Your task to perform on an android device: turn off translation in the chrome app Image 0: 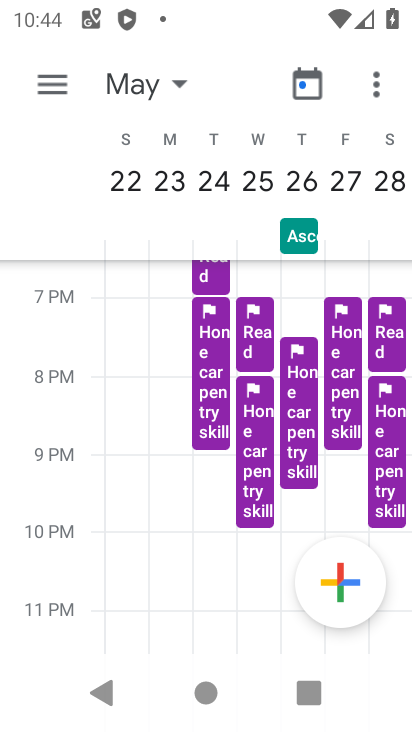
Step 0: press home button
Your task to perform on an android device: turn off translation in the chrome app Image 1: 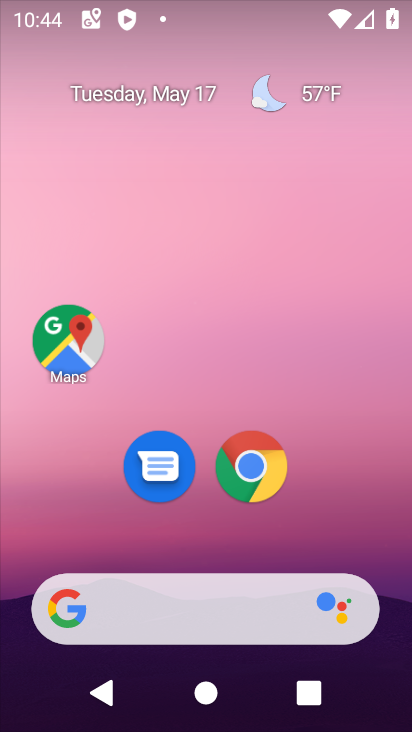
Step 1: drag from (202, 554) to (203, 20)
Your task to perform on an android device: turn off translation in the chrome app Image 2: 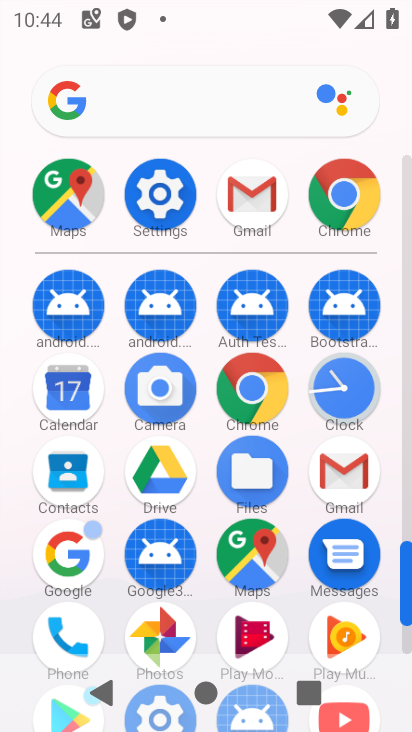
Step 2: click (232, 386)
Your task to perform on an android device: turn off translation in the chrome app Image 3: 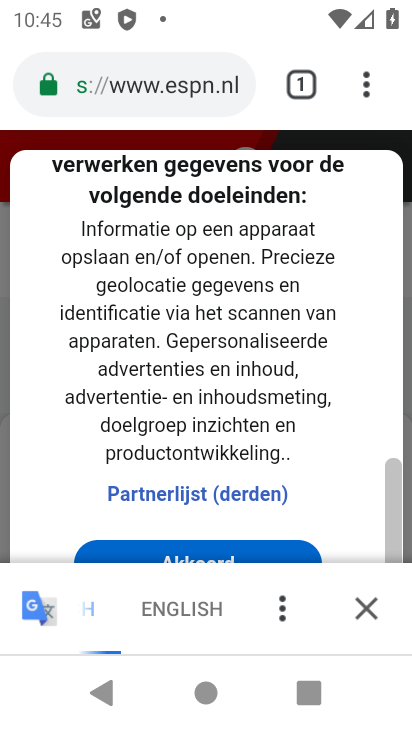
Step 3: click (355, 92)
Your task to perform on an android device: turn off translation in the chrome app Image 4: 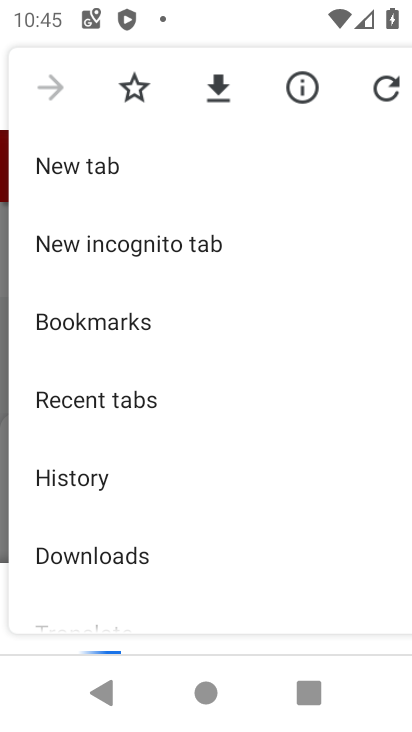
Step 4: drag from (140, 457) to (110, 121)
Your task to perform on an android device: turn off translation in the chrome app Image 5: 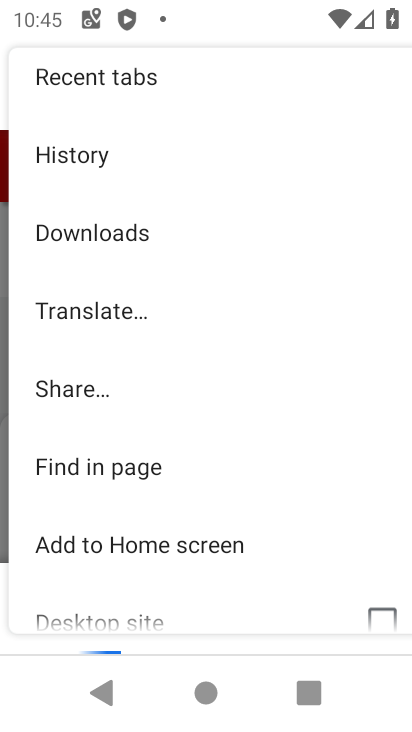
Step 5: drag from (110, 528) to (90, 186)
Your task to perform on an android device: turn off translation in the chrome app Image 6: 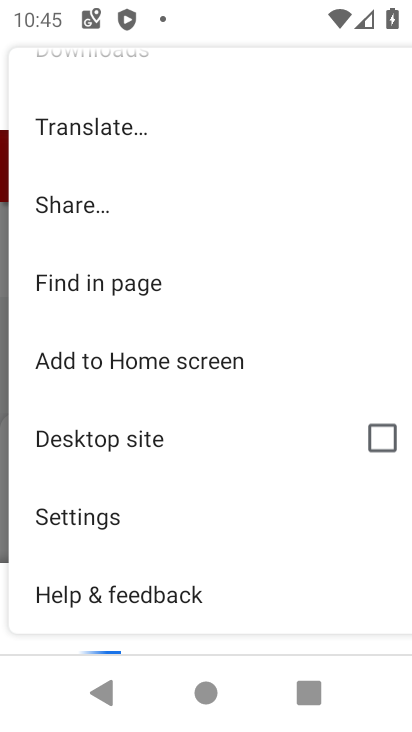
Step 6: click (134, 517)
Your task to perform on an android device: turn off translation in the chrome app Image 7: 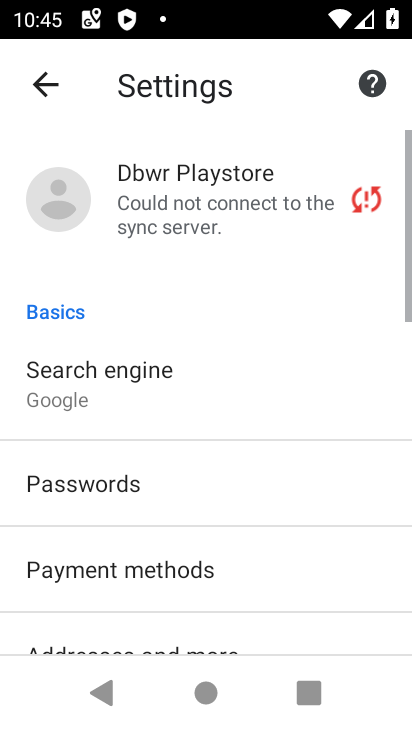
Step 7: drag from (134, 517) to (116, 135)
Your task to perform on an android device: turn off translation in the chrome app Image 8: 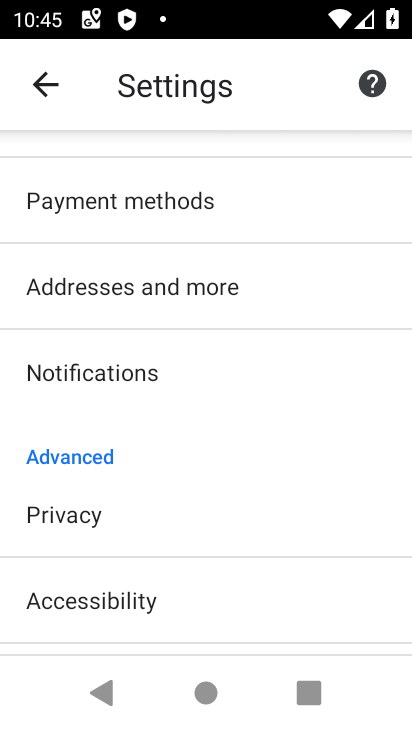
Step 8: drag from (147, 588) to (117, 174)
Your task to perform on an android device: turn off translation in the chrome app Image 9: 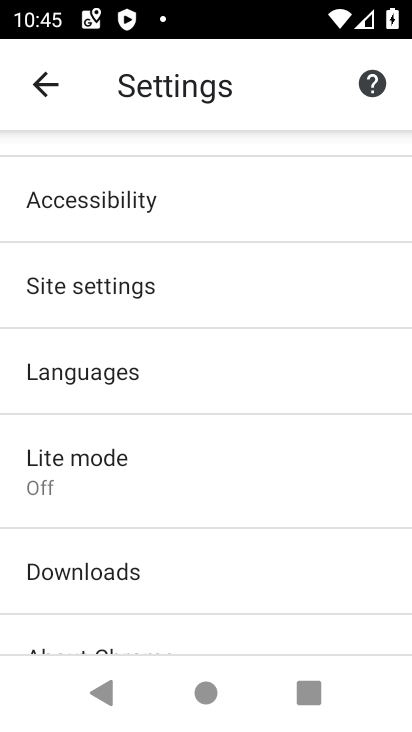
Step 9: click (123, 381)
Your task to perform on an android device: turn off translation in the chrome app Image 10: 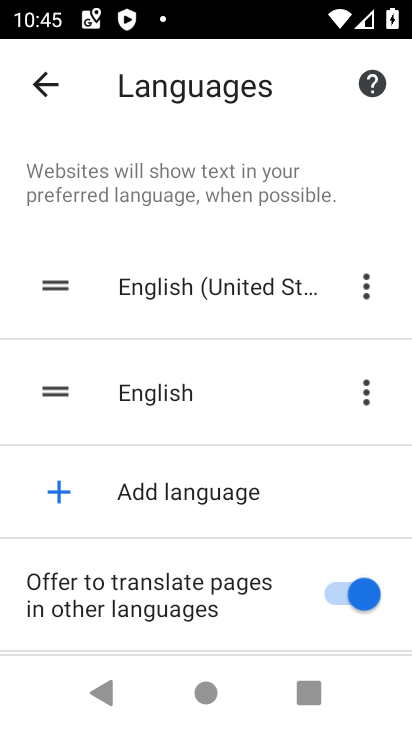
Step 10: drag from (119, 563) to (104, 390)
Your task to perform on an android device: turn off translation in the chrome app Image 11: 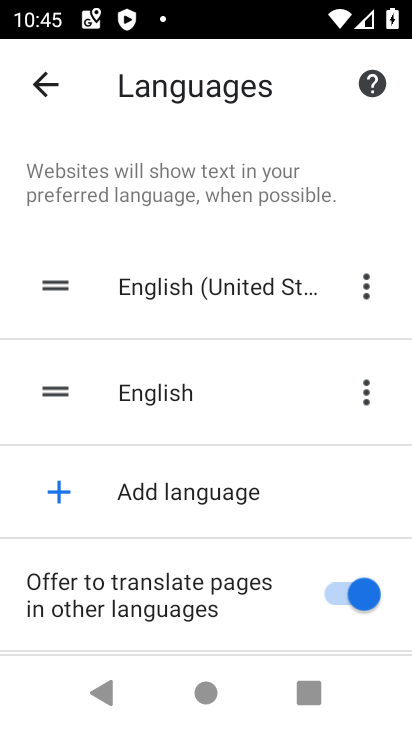
Step 11: click (340, 599)
Your task to perform on an android device: turn off translation in the chrome app Image 12: 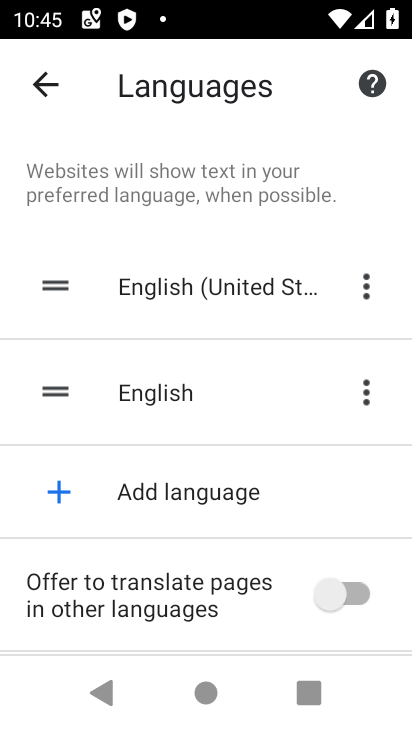
Step 12: task complete